Your task to perform on an android device: What's on my calendar tomorrow? Image 0: 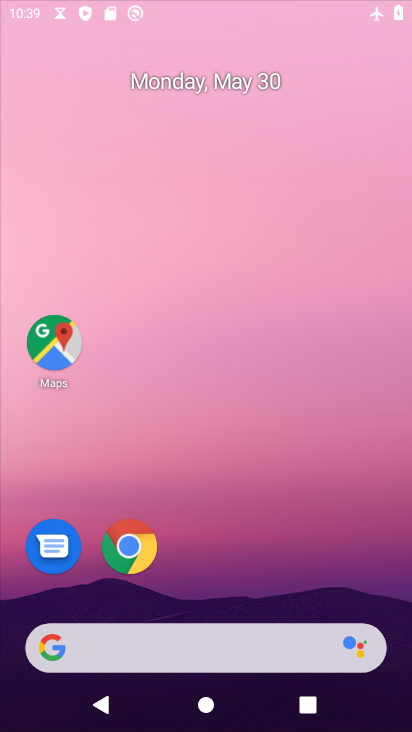
Step 0: press home button
Your task to perform on an android device: What's on my calendar tomorrow? Image 1: 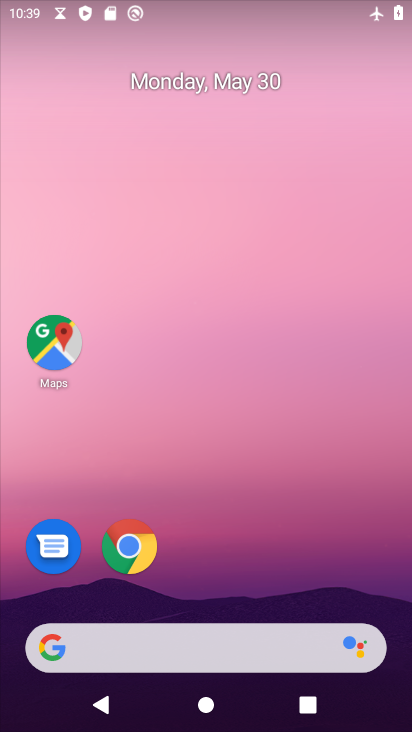
Step 1: drag from (229, 592) to (226, 17)
Your task to perform on an android device: What's on my calendar tomorrow? Image 2: 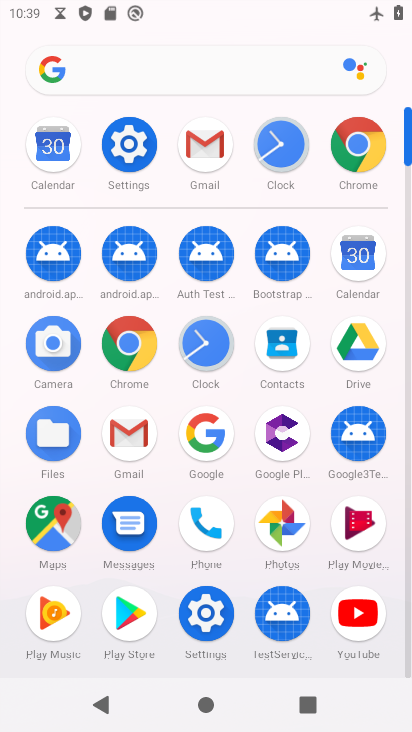
Step 2: click (355, 251)
Your task to perform on an android device: What's on my calendar tomorrow? Image 3: 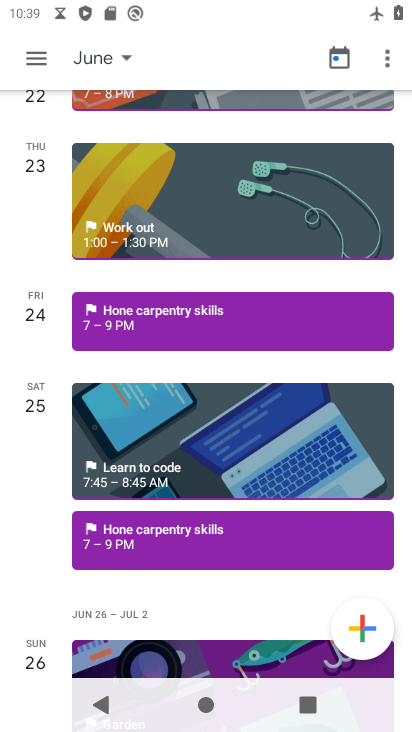
Step 3: click (35, 59)
Your task to perform on an android device: What's on my calendar tomorrow? Image 4: 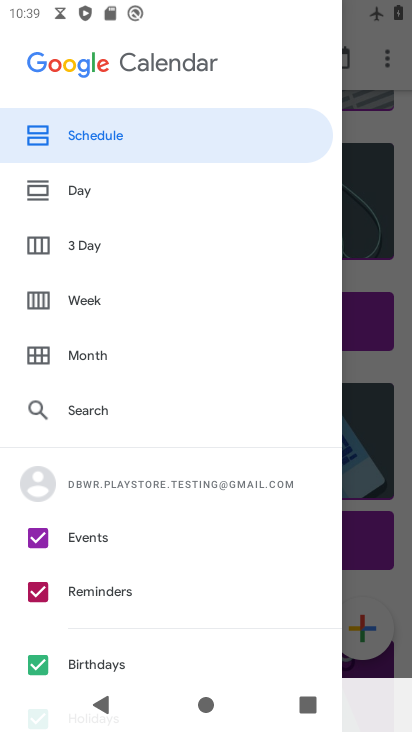
Step 4: click (64, 190)
Your task to perform on an android device: What's on my calendar tomorrow? Image 5: 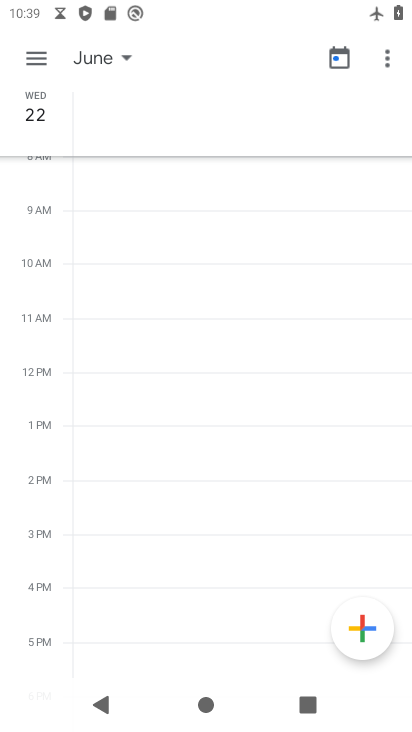
Step 5: click (125, 53)
Your task to perform on an android device: What's on my calendar tomorrow? Image 6: 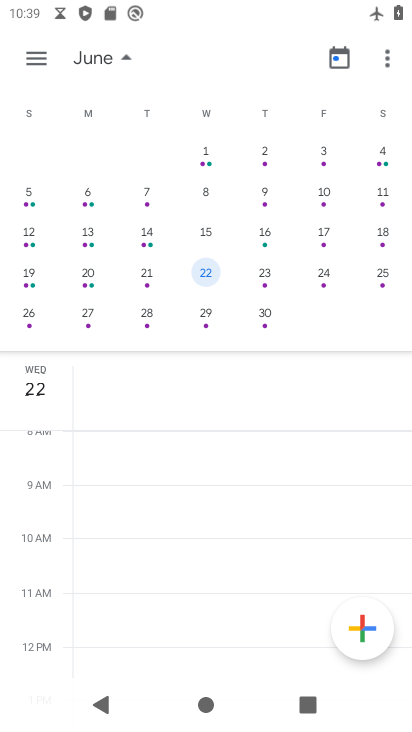
Step 6: drag from (32, 244) to (411, 269)
Your task to perform on an android device: What's on my calendar tomorrow? Image 7: 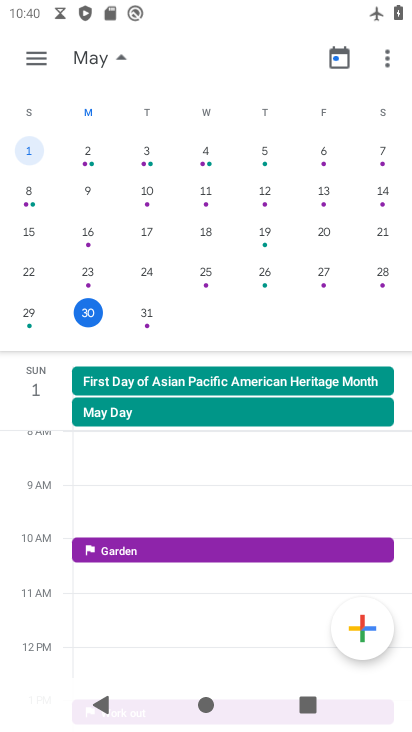
Step 7: click (147, 309)
Your task to perform on an android device: What's on my calendar tomorrow? Image 8: 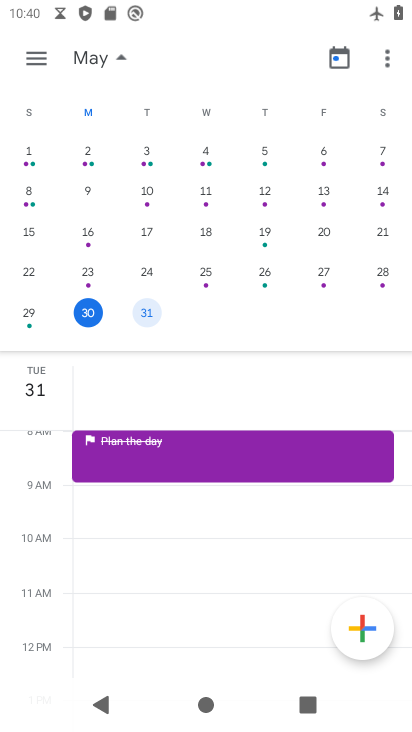
Step 8: click (111, 55)
Your task to perform on an android device: What's on my calendar tomorrow? Image 9: 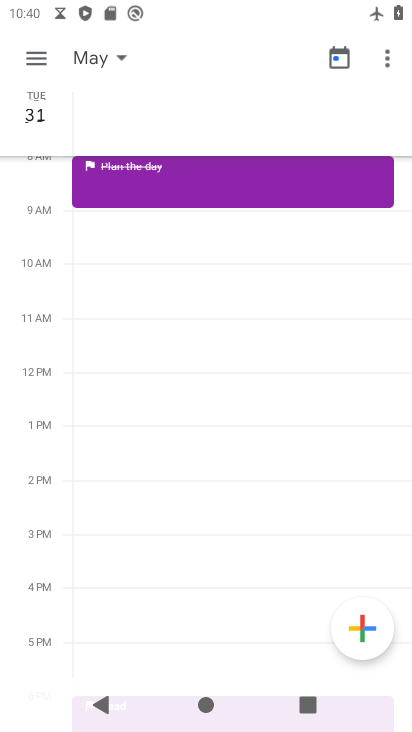
Step 9: task complete